Your task to perform on an android device: move an email to a new category in the gmail app Image 0: 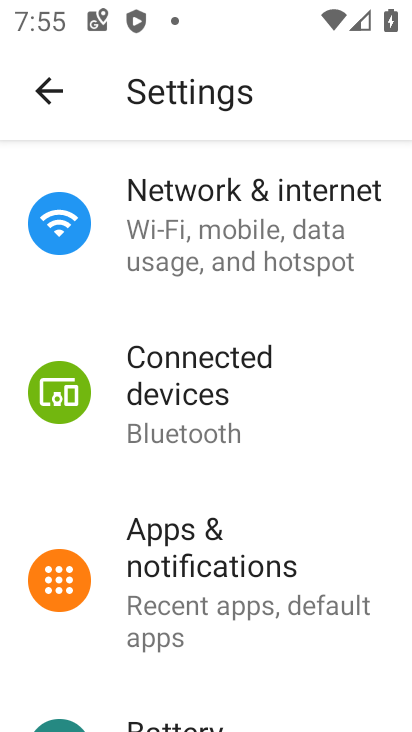
Step 0: press home button
Your task to perform on an android device: move an email to a new category in the gmail app Image 1: 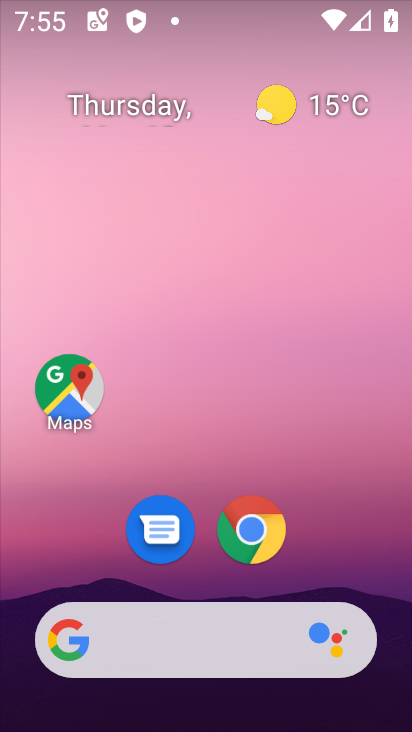
Step 1: drag from (236, 717) to (191, 39)
Your task to perform on an android device: move an email to a new category in the gmail app Image 2: 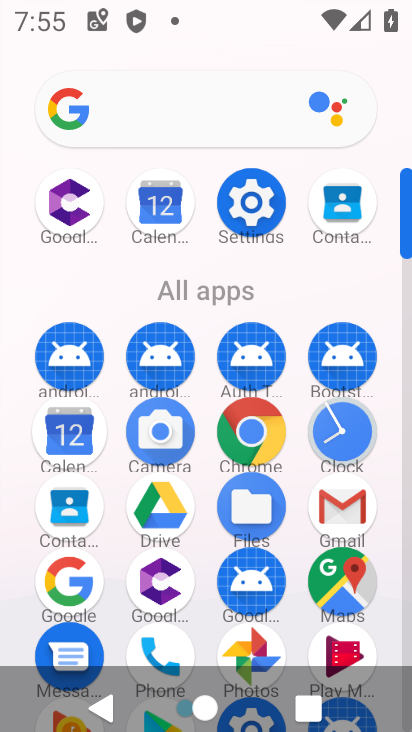
Step 2: click (341, 510)
Your task to perform on an android device: move an email to a new category in the gmail app Image 3: 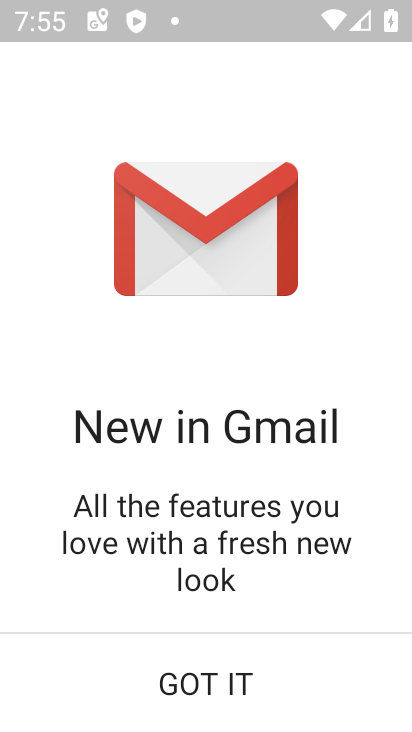
Step 3: click (174, 677)
Your task to perform on an android device: move an email to a new category in the gmail app Image 4: 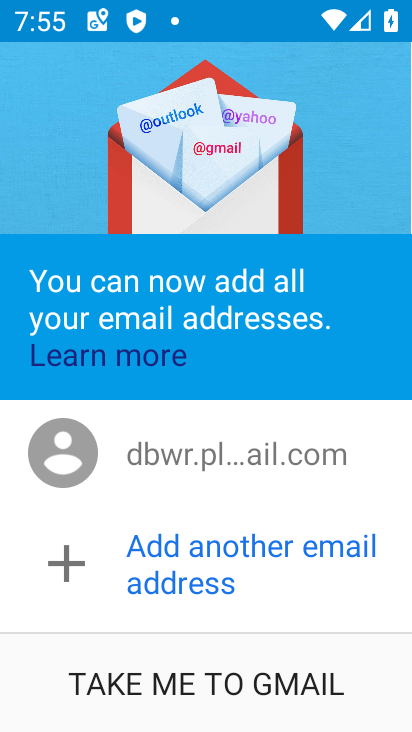
Step 4: click (174, 677)
Your task to perform on an android device: move an email to a new category in the gmail app Image 5: 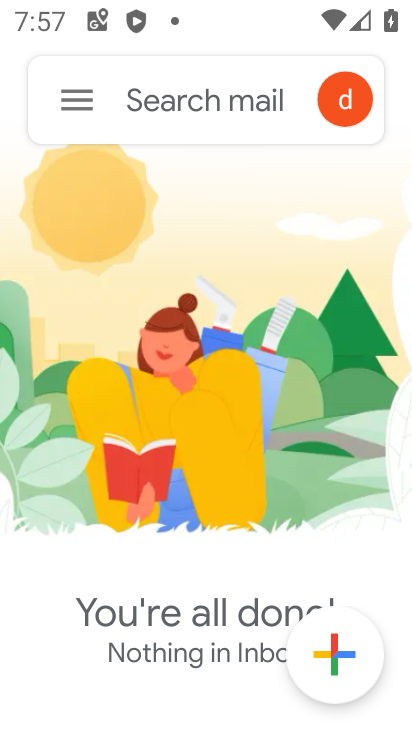
Step 5: task complete